Your task to perform on an android device: Add "bose soundsport free" to the cart on ebay.com, then select checkout. Image 0: 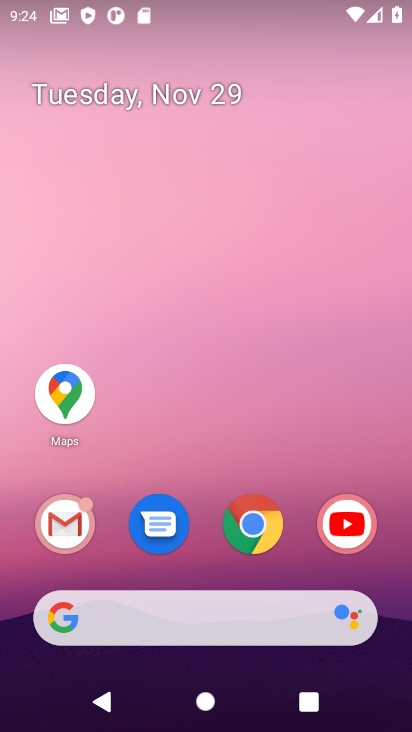
Step 0: click (260, 534)
Your task to perform on an android device: Add "bose soundsport free" to the cart on ebay.com, then select checkout. Image 1: 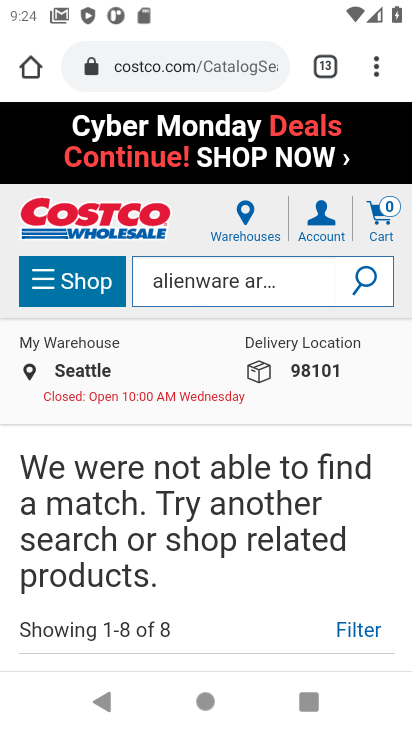
Step 1: click (191, 61)
Your task to perform on an android device: Add "bose soundsport free" to the cart on ebay.com, then select checkout. Image 2: 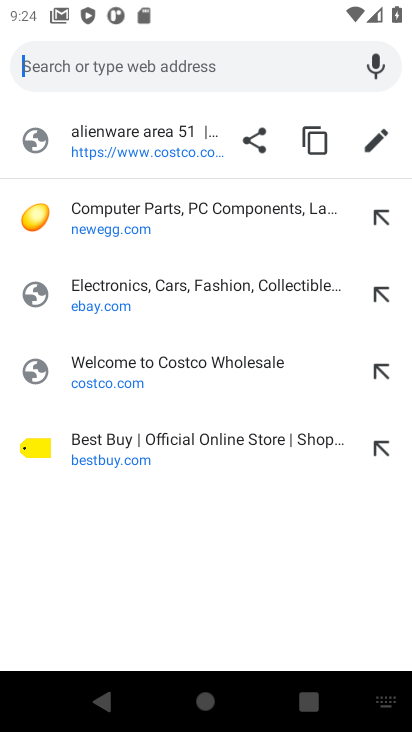
Step 2: click (99, 285)
Your task to perform on an android device: Add "bose soundsport free" to the cart on ebay.com, then select checkout. Image 3: 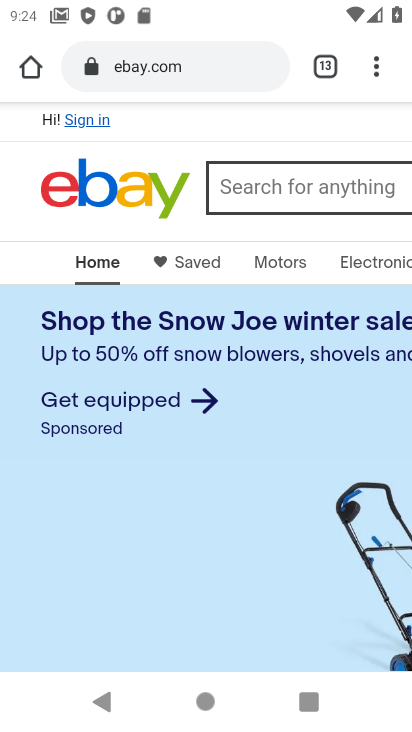
Step 3: click (286, 186)
Your task to perform on an android device: Add "bose soundsport free" to the cart on ebay.com, then select checkout. Image 4: 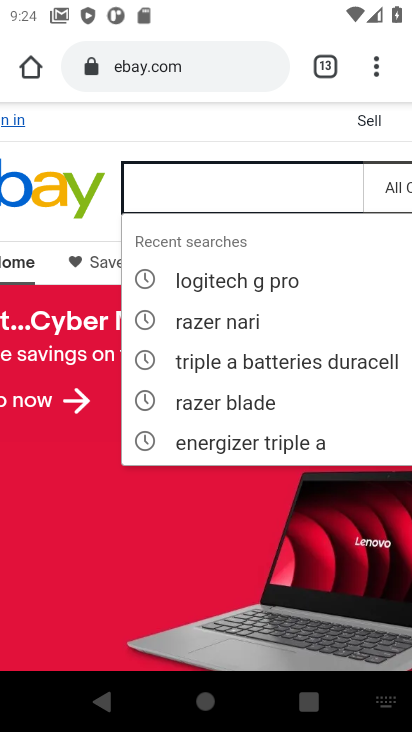
Step 4: type "bose soundsport free"
Your task to perform on an android device: Add "bose soundsport free" to the cart on ebay.com, then select checkout. Image 5: 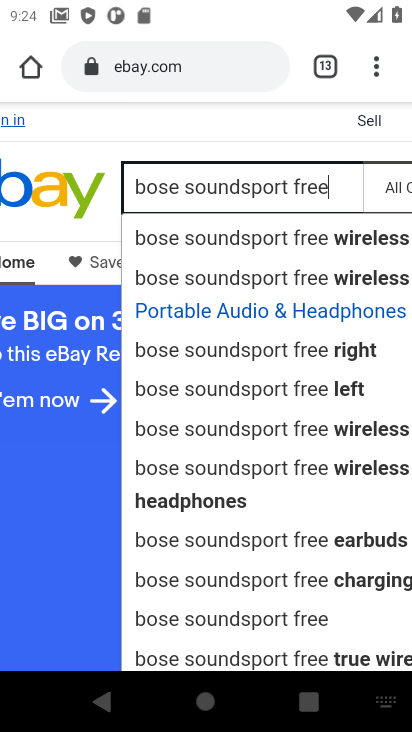
Step 5: click (302, 244)
Your task to perform on an android device: Add "bose soundsport free" to the cart on ebay.com, then select checkout. Image 6: 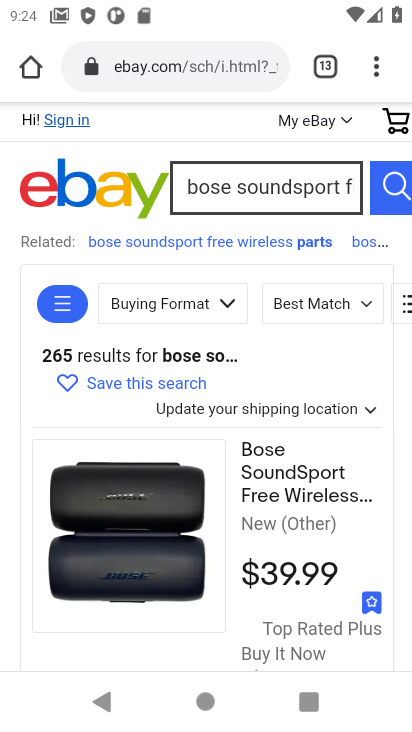
Step 6: drag from (187, 523) to (204, 169)
Your task to perform on an android device: Add "bose soundsport free" to the cart on ebay.com, then select checkout. Image 7: 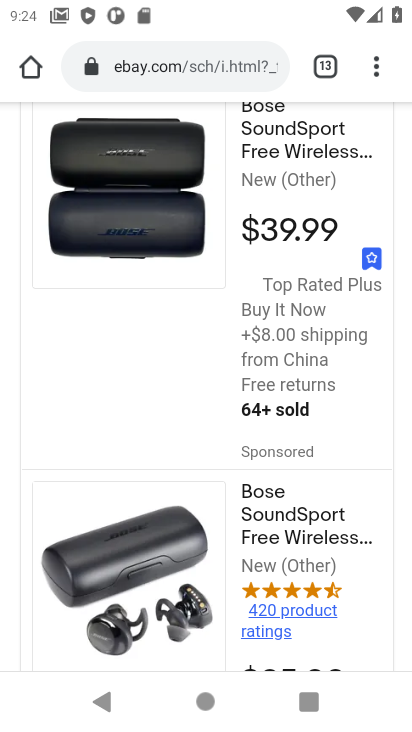
Step 7: click (243, 300)
Your task to perform on an android device: Add "bose soundsport free" to the cart on ebay.com, then select checkout. Image 8: 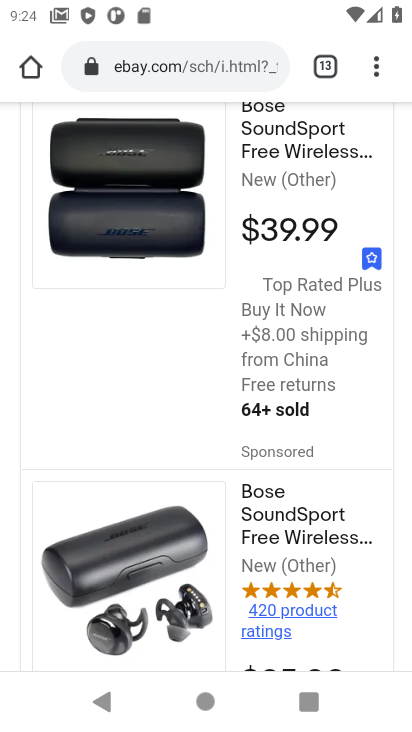
Step 8: click (149, 214)
Your task to perform on an android device: Add "bose soundsport free" to the cart on ebay.com, then select checkout. Image 9: 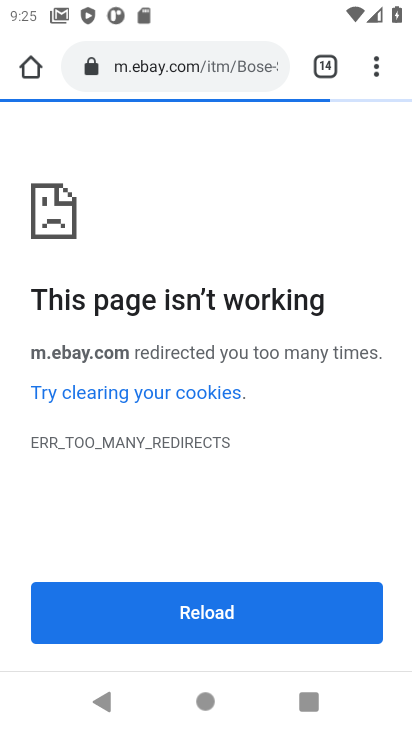
Step 9: task complete